Your task to perform on an android device: Do I have any events this weekend? Image 0: 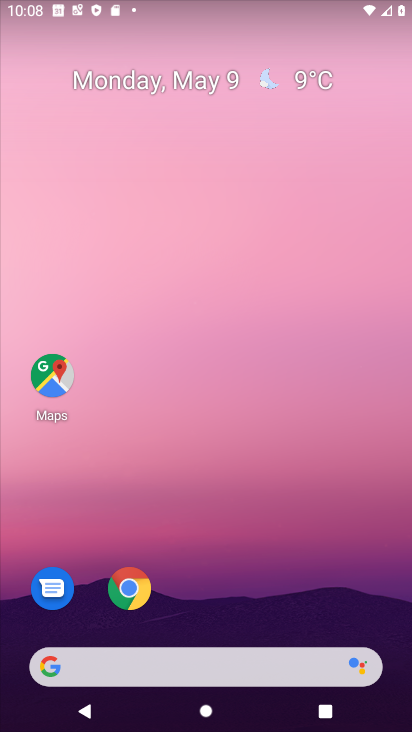
Step 0: drag from (218, 662) to (327, 160)
Your task to perform on an android device: Do I have any events this weekend? Image 1: 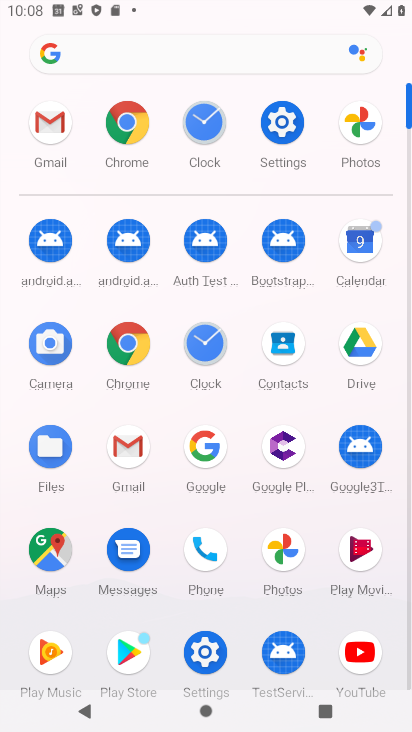
Step 1: click (356, 253)
Your task to perform on an android device: Do I have any events this weekend? Image 2: 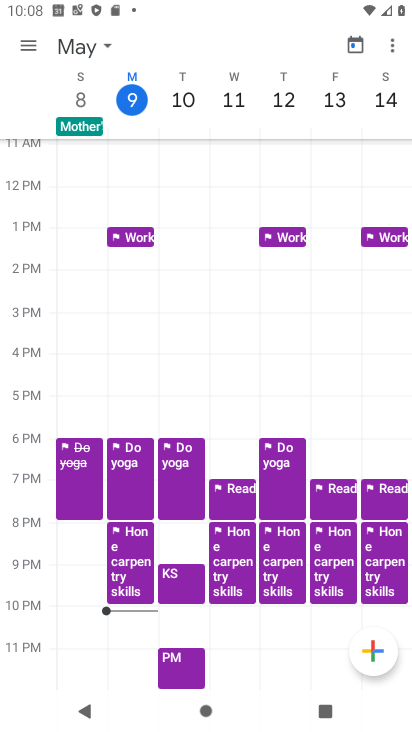
Step 2: click (80, 49)
Your task to perform on an android device: Do I have any events this weekend? Image 3: 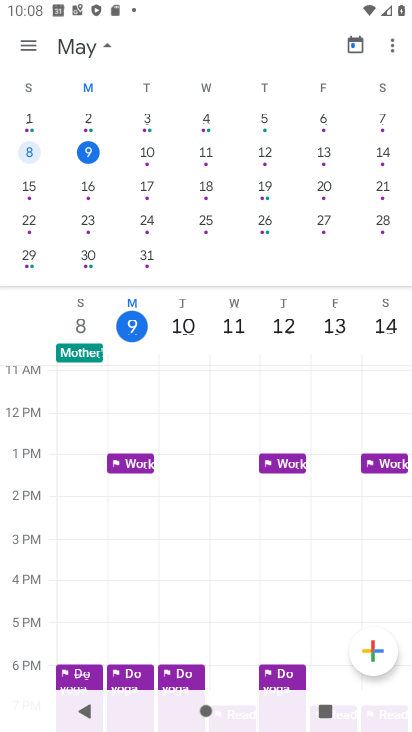
Step 3: click (380, 157)
Your task to perform on an android device: Do I have any events this weekend? Image 4: 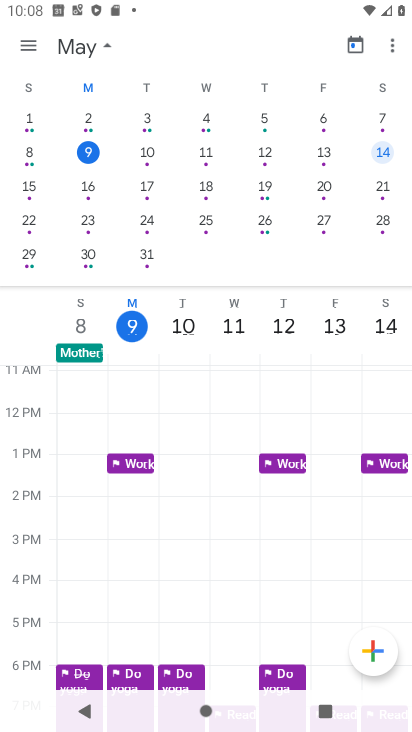
Step 4: click (32, 46)
Your task to perform on an android device: Do I have any events this weekend? Image 5: 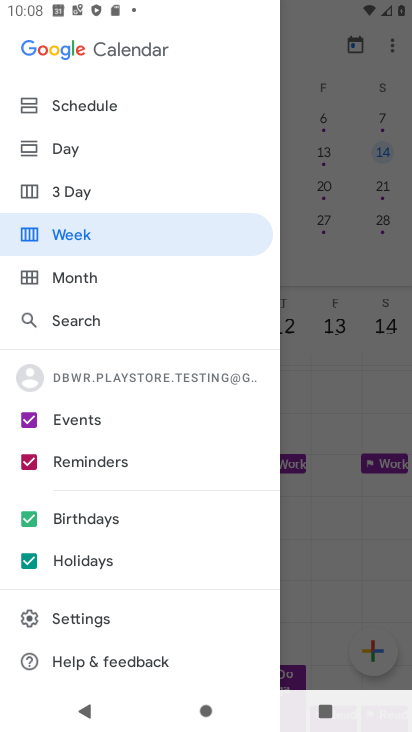
Step 5: click (64, 150)
Your task to perform on an android device: Do I have any events this weekend? Image 6: 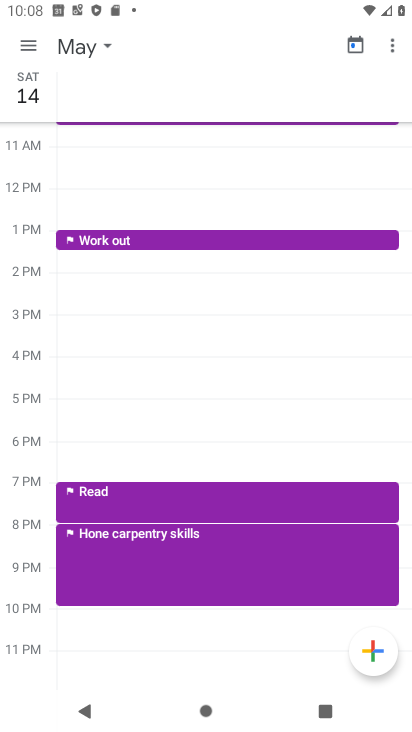
Step 6: click (32, 40)
Your task to perform on an android device: Do I have any events this weekend? Image 7: 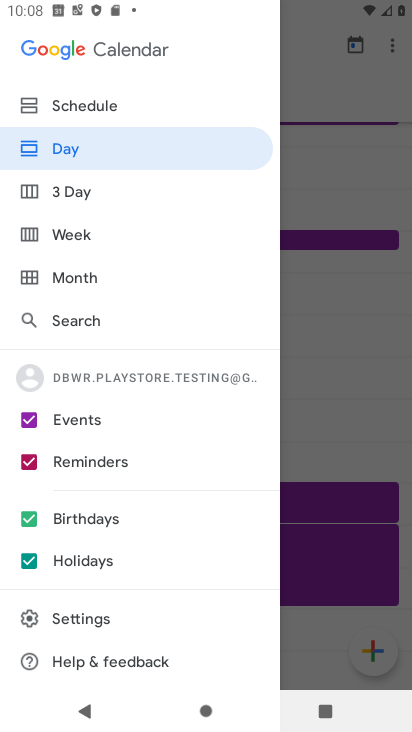
Step 7: click (117, 108)
Your task to perform on an android device: Do I have any events this weekend? Image 8: 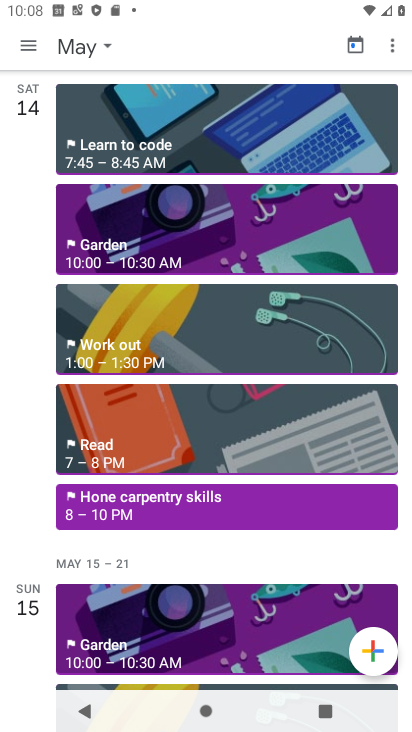
Step 8: click (161, 221)
Your task to perform on an android device: Do I have any events this weekend? Image 9: 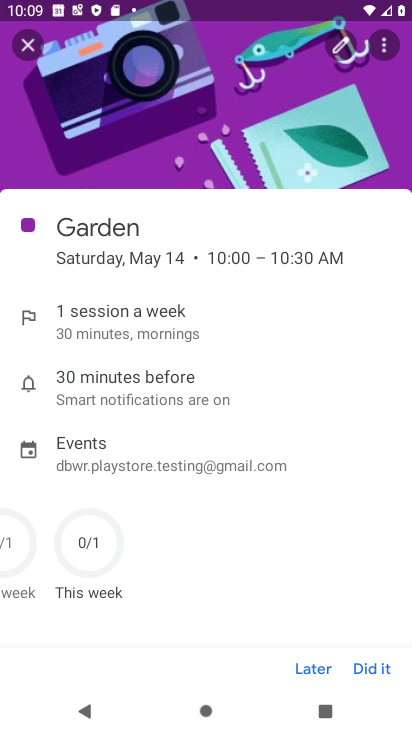
Step 9: task complete